Your task to perform on an android device: Search for hotels in Seattle Image 0: 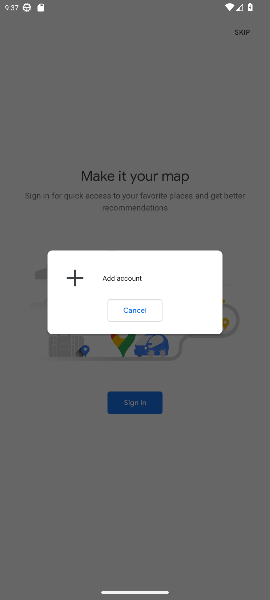
Step 0: press home button
Your task to perform on an android device: Search for hotels in Seattle Image 1: 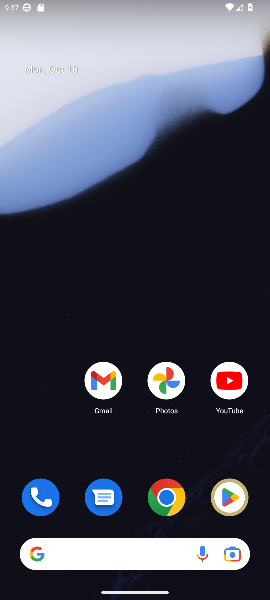
Step 1: drag from (130, 289) to (140, 131)
Your task to perform on an android device: Search for hotels in Seattle Image 2: 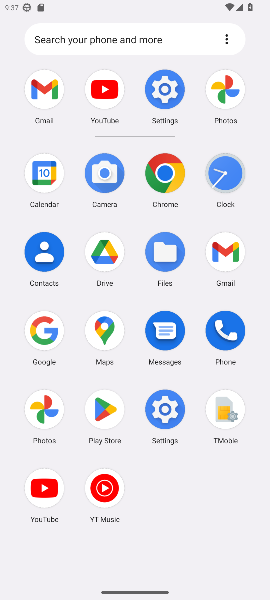
Step 2: click (39, 330)
Your task to perform on an android device: Search for hotels in Seattle Image 3: 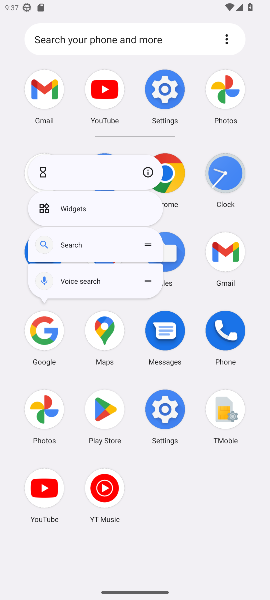
Step 3: click (39, 329)
Your task to perform on an android device: Search for hotels in Seattle Image 4: 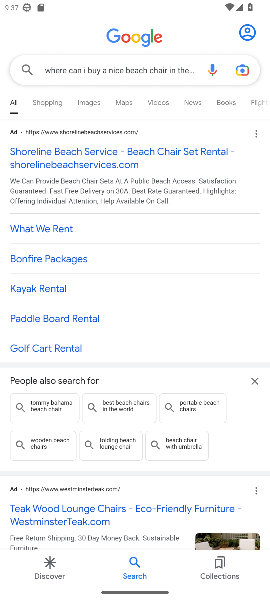
Step 4: click (82, 63)
Your task to perform on an android device: Search for hotels in Seattle Image 5: 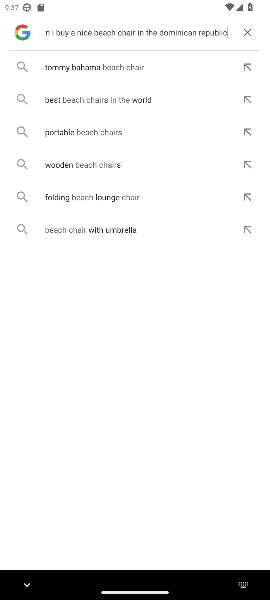
Step 5: click (251, 29)
Your task to perform on an android device: Search for hotels in Seattle Image 6: 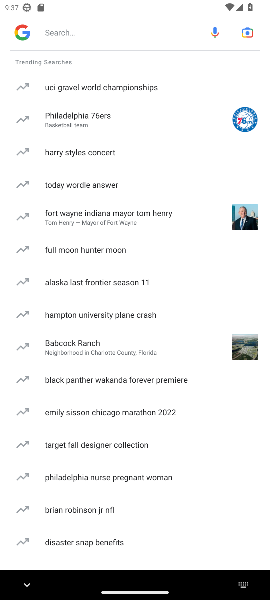
Step 6: click (111, 29)
Your task to perform on an android device: Search for hotels in Seattle Image 7: 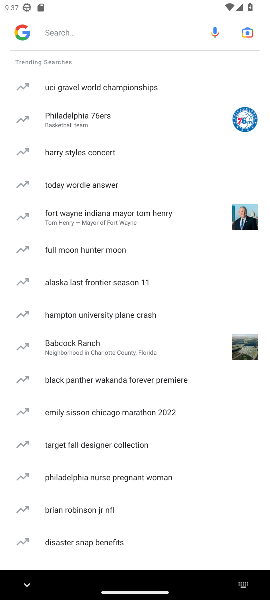
Step 7: type "Search for hotels in Seattle "
Your task to perform on an android device: Search for hotels in Seattle Image 8: 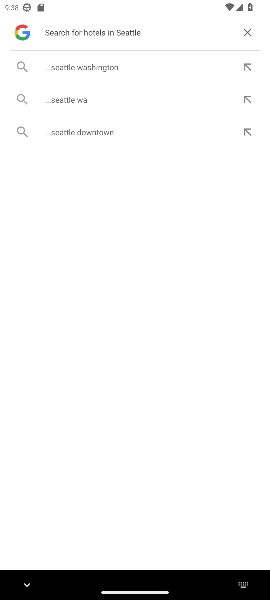
Step 8: click (105, 70)
Your task to perform on an android device: Search for hotels in Seattle Image 9: 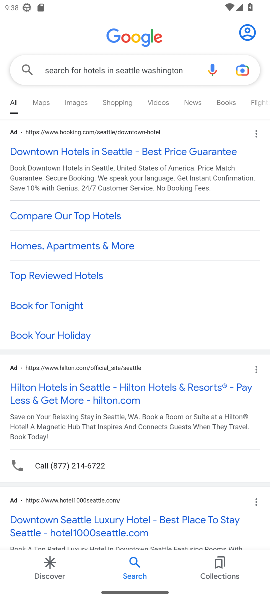
Step 9: click (105, 153)
Your task to perform on an android device: Search for hotels in Seattle Image 10: 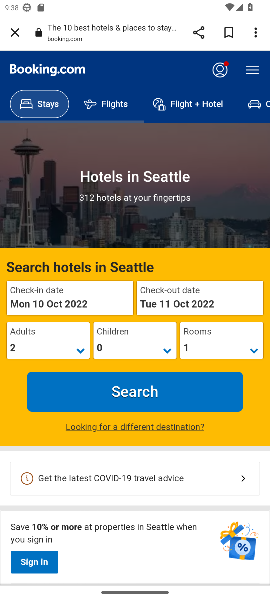
Step 10: click (136, 385)
Your task to perform on an android device: Search for hotels in Seattle Image 11: 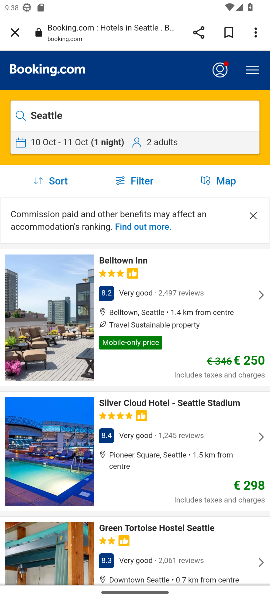
Step 11: click (161, 550)
Your task to perform on an android device: Search for hotels in Seattle Image 12: 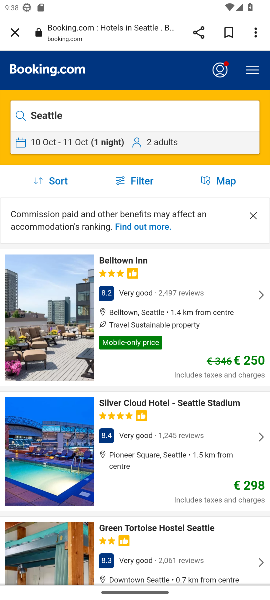
Step 12: task complete